Your task to perform on an android device: change notification settings in the gmail app Image 0: 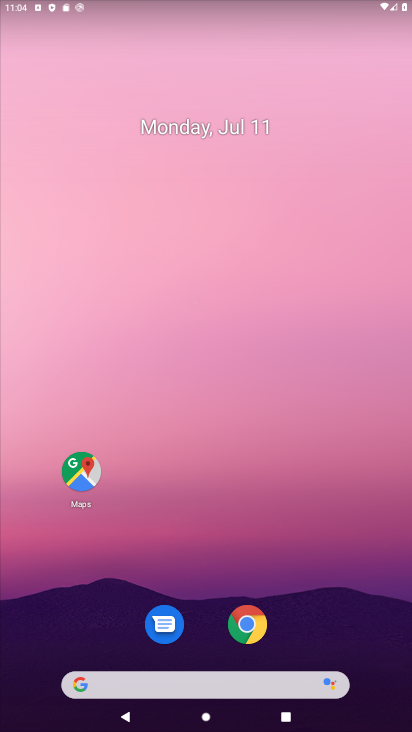
Step 0: drag from (212, 631) to (214, 220)
Your task to perform on an android device: change notification settings in the gmail app Image 1: 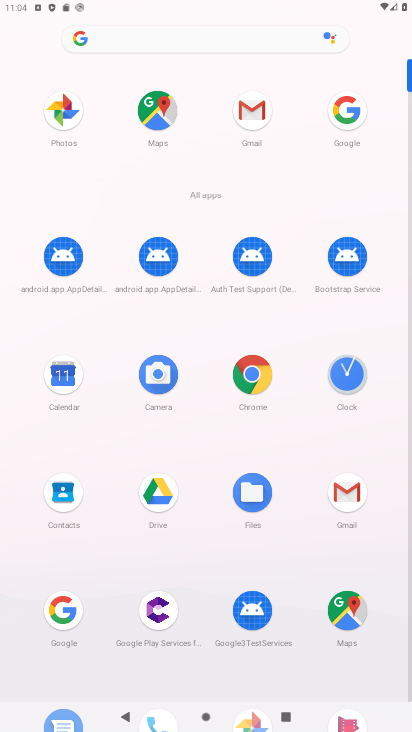
Step 1: click (252, 109)
Your task to perform on an android device: change notification settings in the gmail app Image 2: 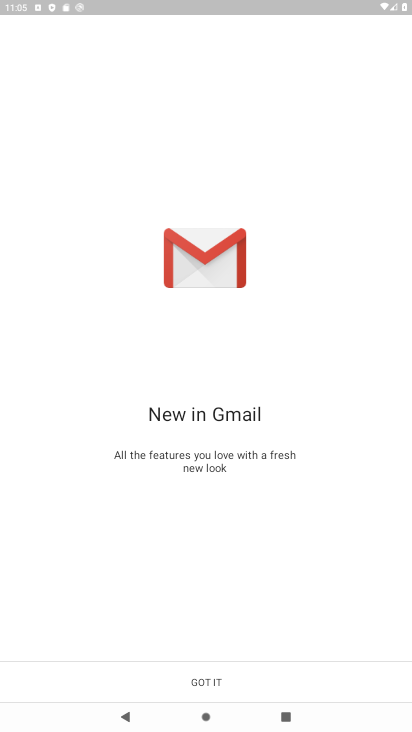
Step 2: click (245, 678)
Your task to perform on an android device: change notification settings in the gmail app Image 3: 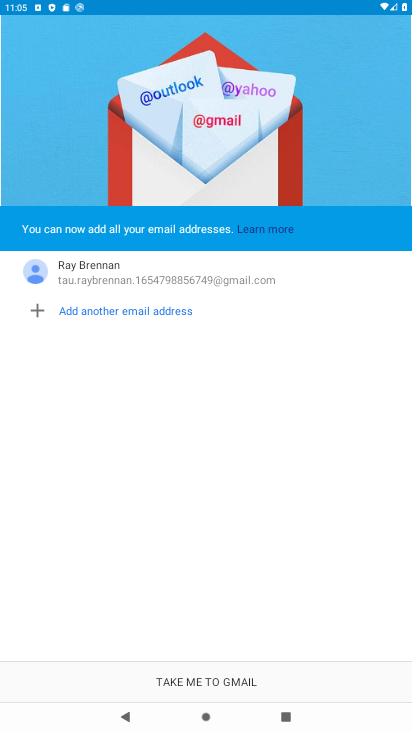
Step 3: click (216, 681)
Your task to perform on an android device: change notification settings in the gmail app Image 4: 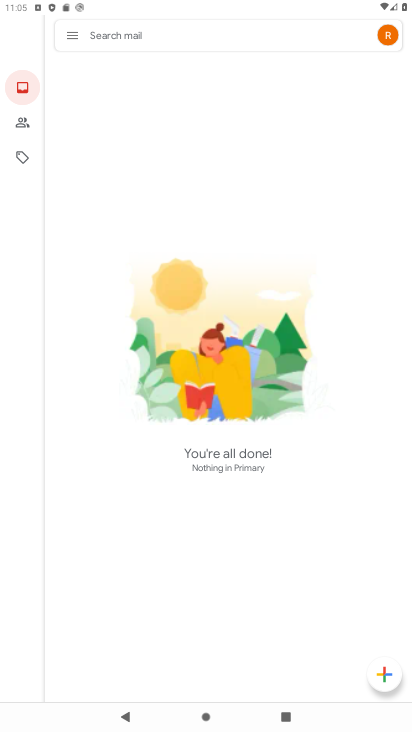
Step 4: click (72, 29)
Your task to perform on an android device: change notification settings in the gmail app Image 5: 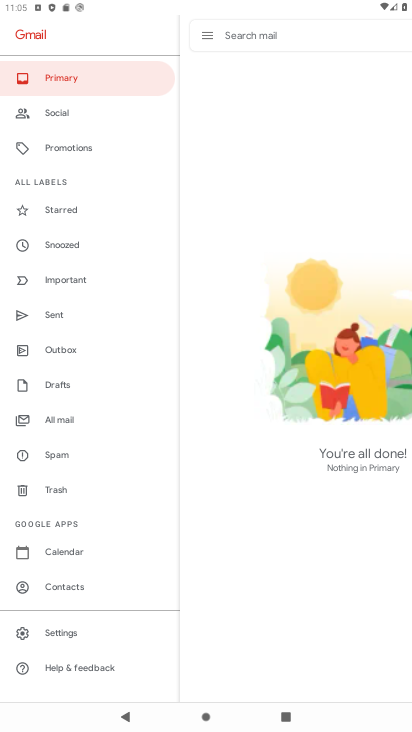
Step 5: click (107, 632)
Your task to perform on an android device: change notification settings in the gmail app Image 6: 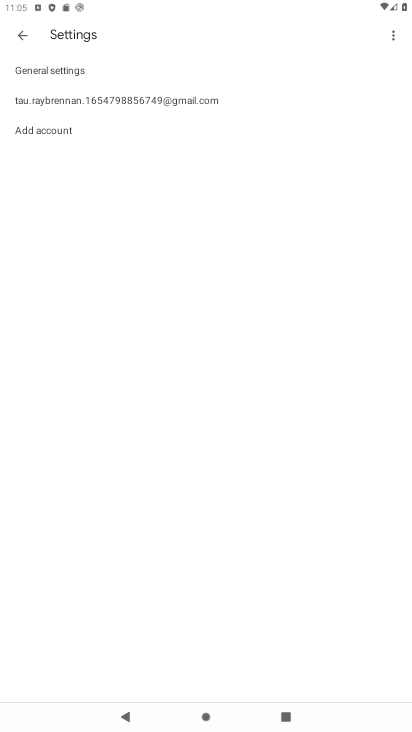
Step 6: click (117, 97)
Your task to perform on an android device: change notification settings in the gmail app Image 7: 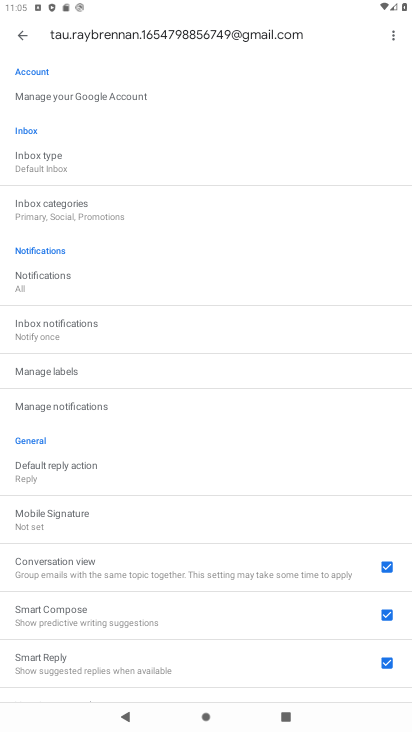
Step 7: click (108, 411)
Your task to perform on an android device: change notification settings in the gmail app Image 8: 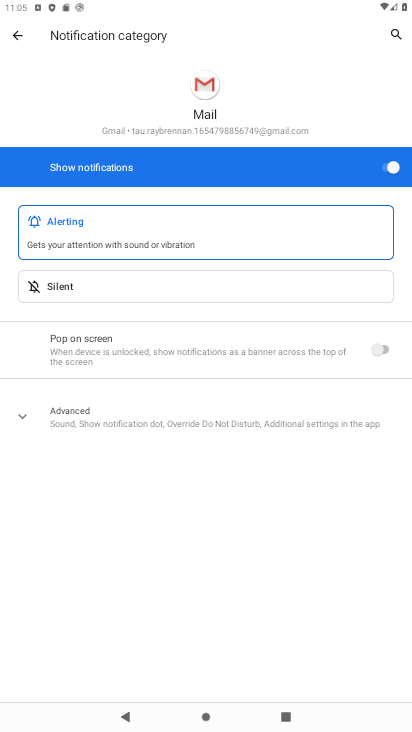
Step 8: click (378, 170)
Your task to perform on an android device: change notification settings in the gmail app Image 9: 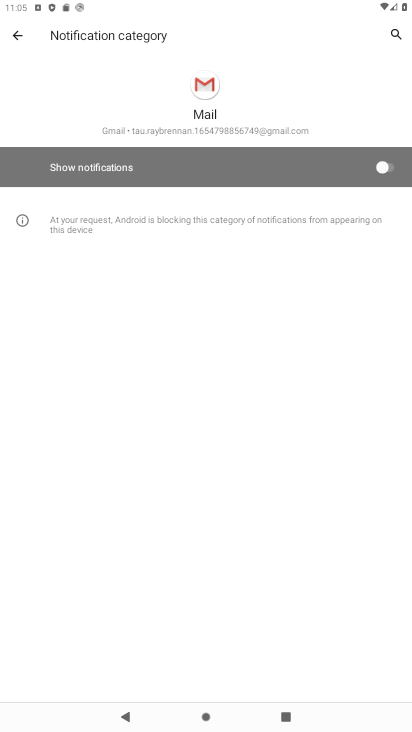
Step 9: task complete